Your task to perform on an android device: find photos in the google photos app Image 0: 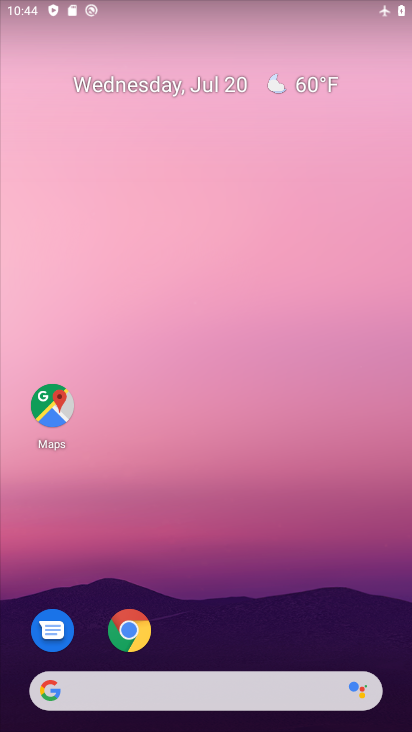
Step 0: drag from (221, 623) to (224, 79)
Your task to perform on an android device: find photos in the google photos app Image 1: 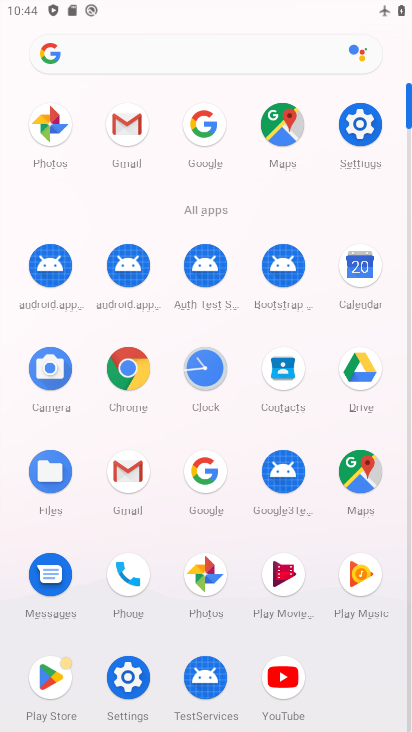
Step 1: click (205, 575)
Your task to perform on an android device: find photos in the google photos app Image 2: 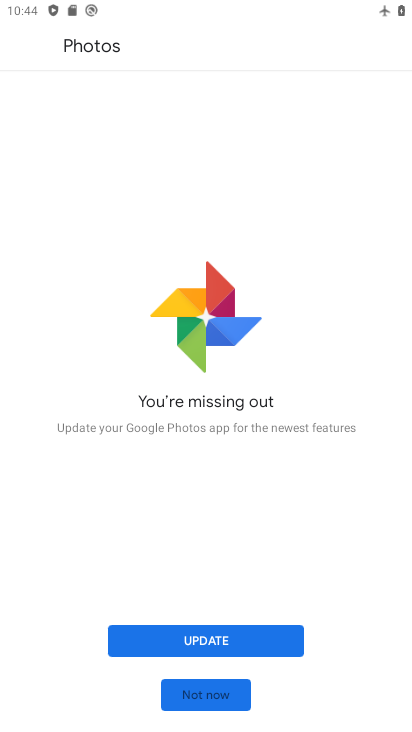
Step 2: click (215, 645)
Your task to perform on an android device: find photos in the google photos app Image 3: 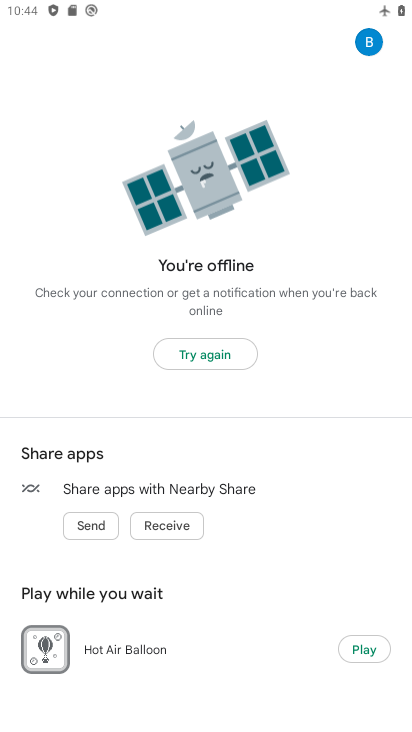
Step 3: click (217, 357)
Your task to perform on an android device: find photos in the google photos app Image 4: 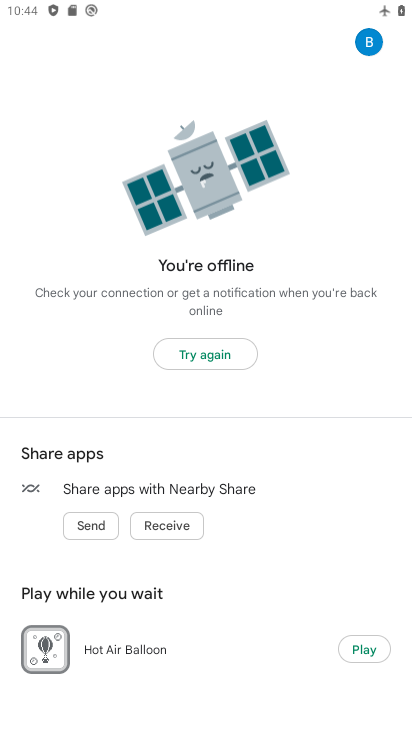
Step 4: task complete